Your task to perform on an android device: Search for flights from Helsinki to Tokyo Image 0: 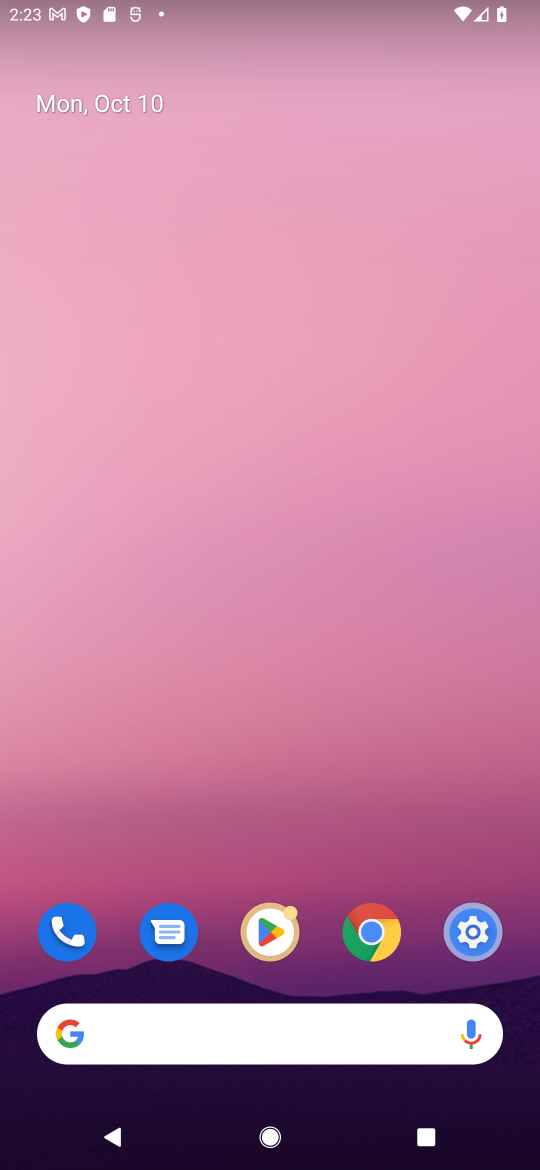
Step 0: click (242, 1040)
Your task to perform on an android device: Search for flights from Helsinki to Tokyo Image 1: 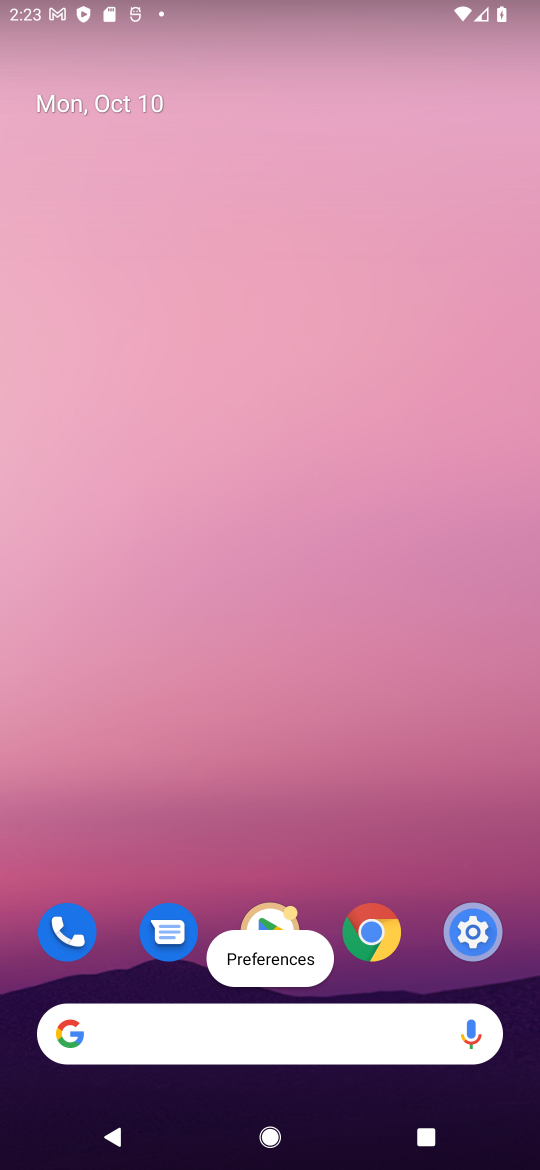
Step 1: click (257, 1040)
Your task to perform on an android device: Search for flights from Helsinki to Tokyo Image 2: 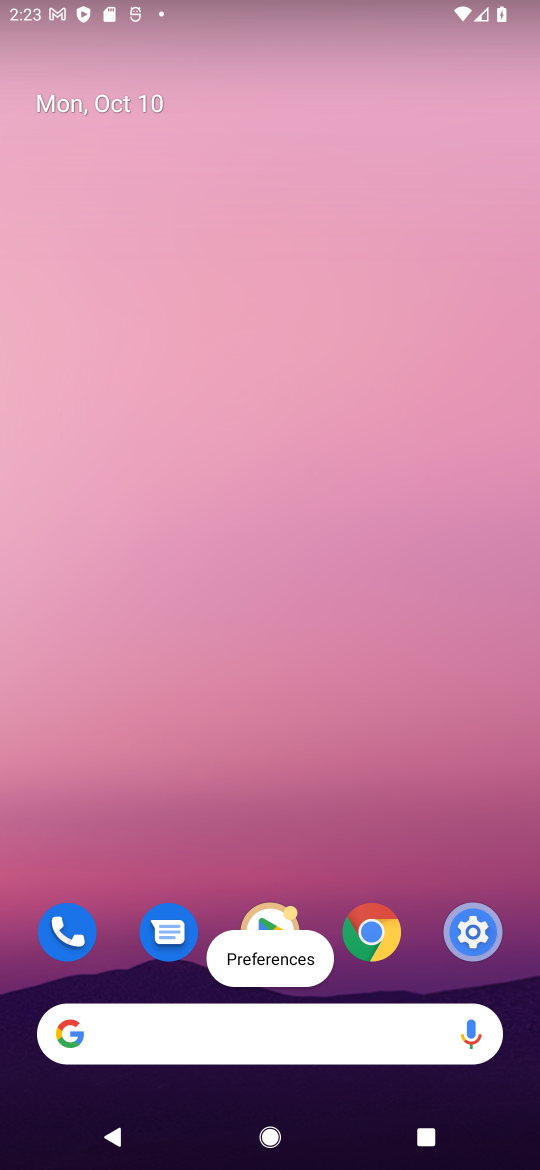
Step 2: click (208, 1023)
Your task to perform on an android device: Search for flights from Helsinki to Tokyo Image 3: 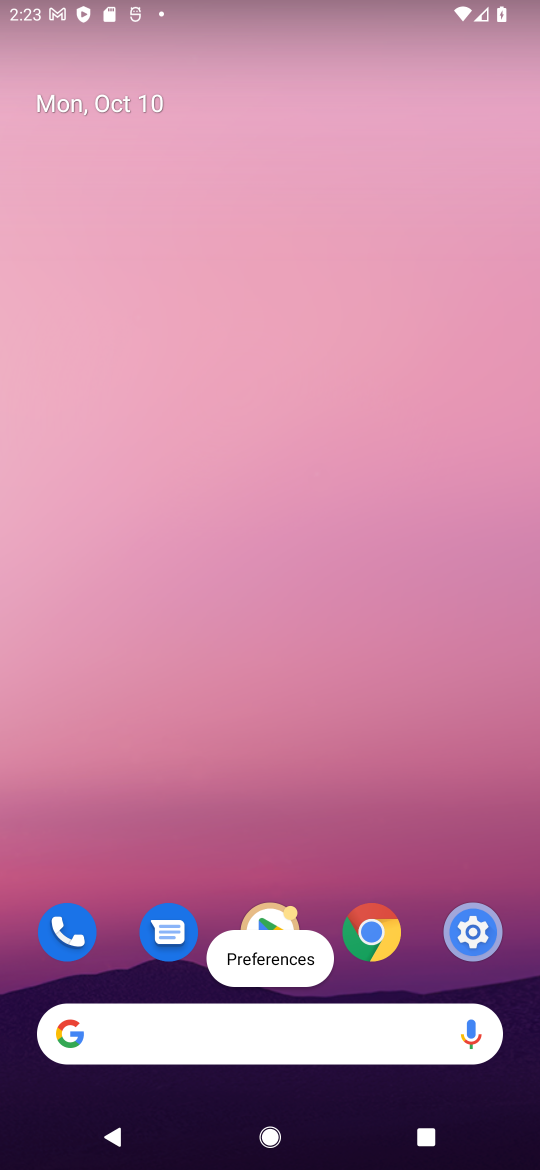
Step 3: click (197, 1019)
Your task to perform on an android device: Search for flights from Helsinki to Tokyo Image 4: 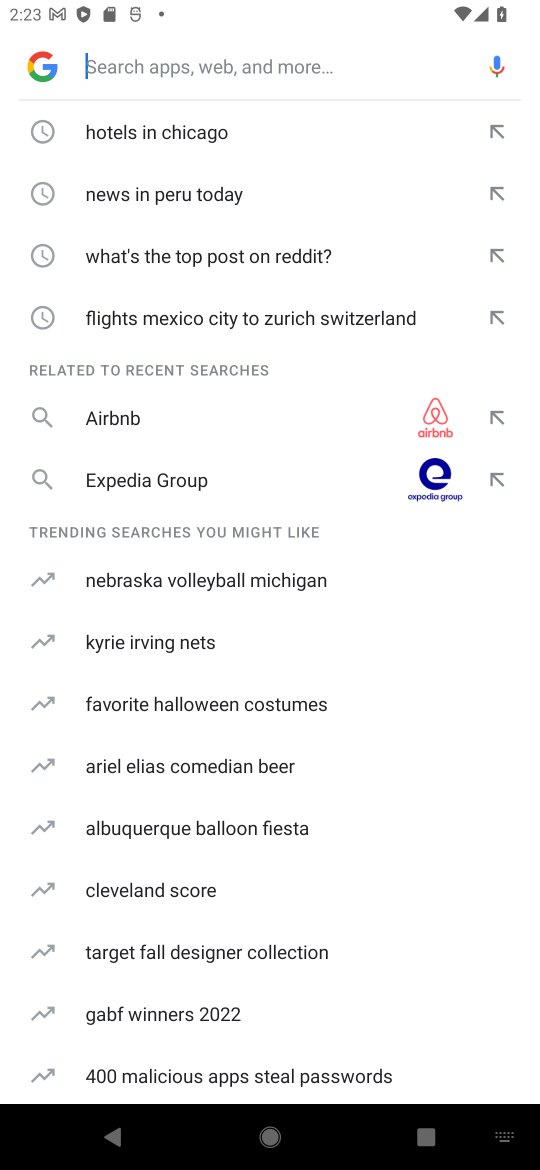
Step 4: press enter
Your task to perform on an android device: Search for flights from Helsinki to Tokyo Image 5: 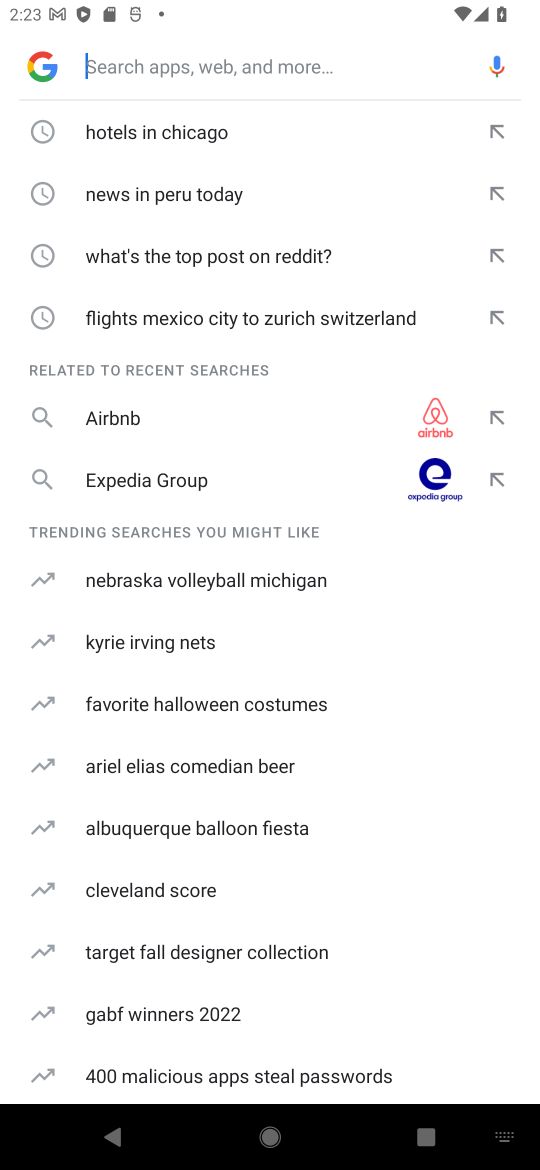
Step 5: type "flights from Helsinki to Tokyo"
Your task to perform on an android device: Search for flights from Helsinki to Tokyo Image 6: 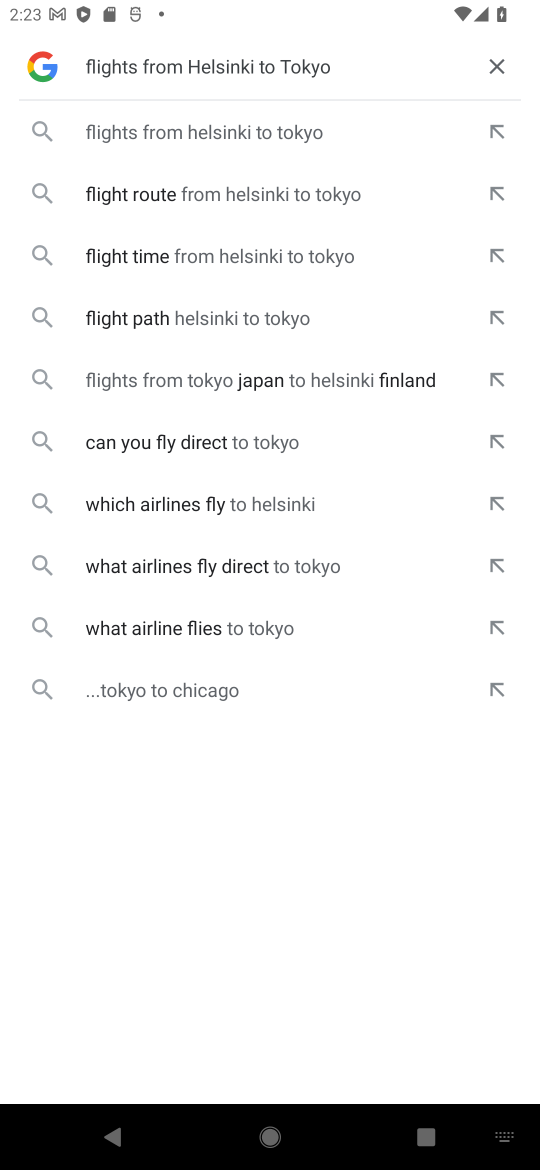
Step 6: press enter
Your task to perform on an android device: Search for flights from Helsinki to Tokyo Image 7: 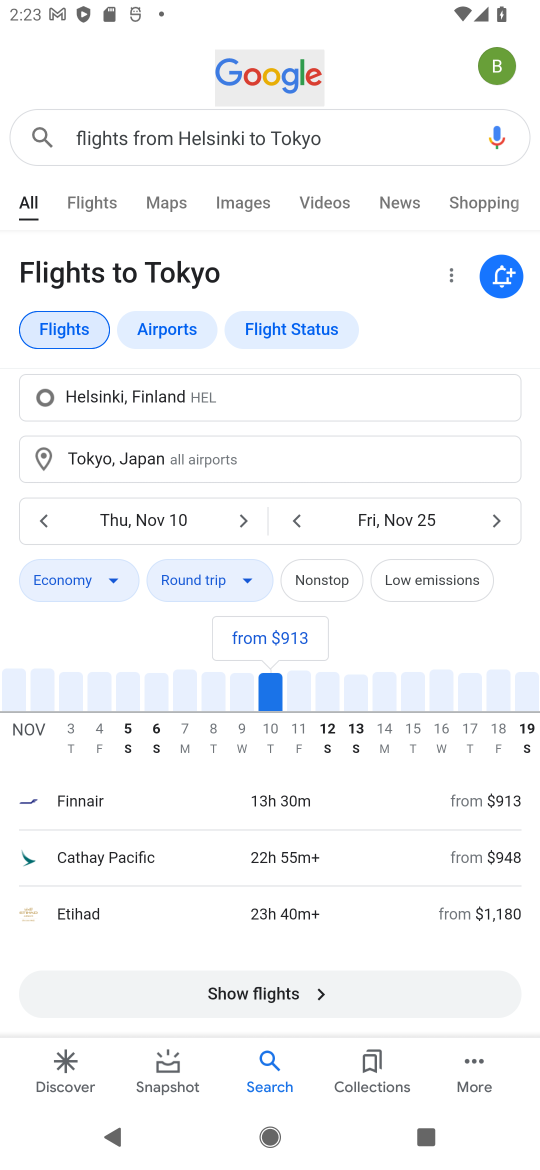
Step 7: click (298, 994)
Your task to perform on an android device: Search for flights from Helsinki to Tokyo Image 8: 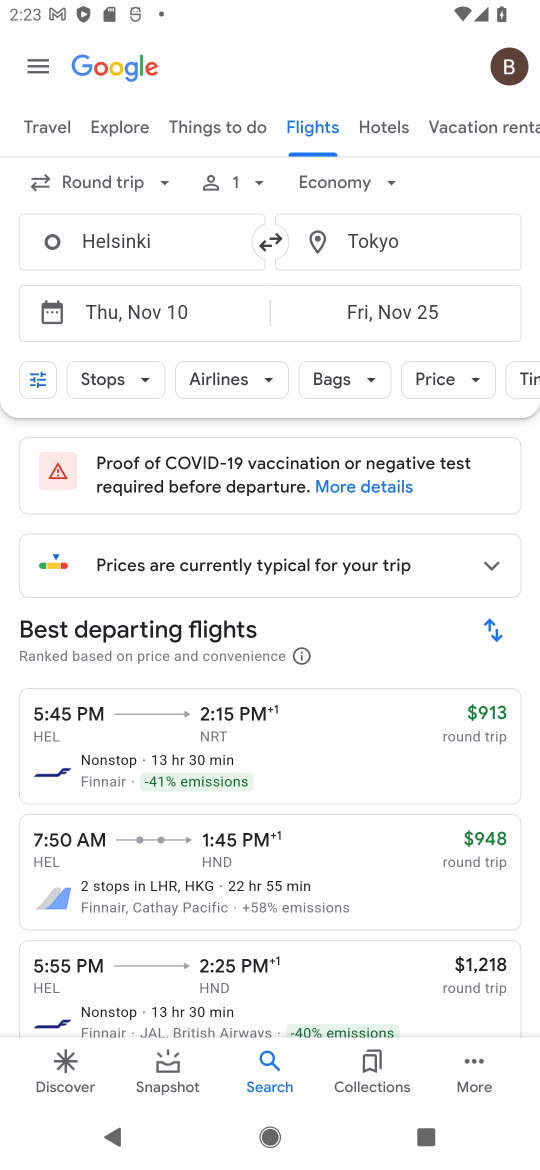
Step 8: task complete